Your task to perform on an android device: Go to Amazon Image 0: 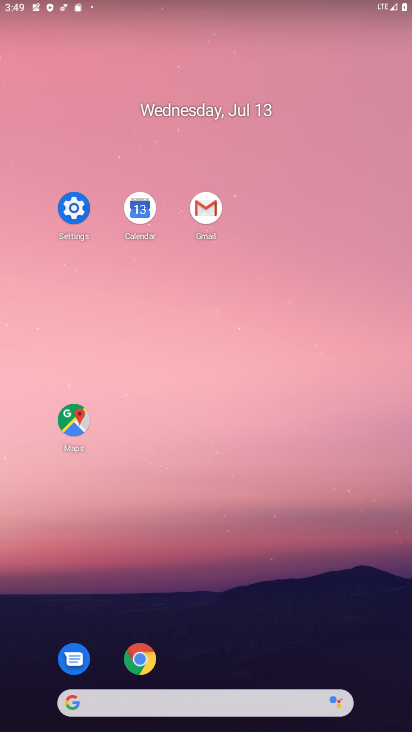
Step 0: click (146, 653)
Your task to perform on an android device: Go to Amazon Image 1: 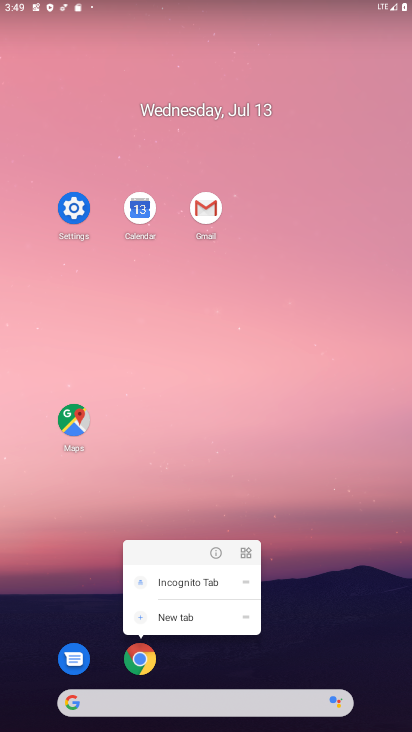
Step 1: click (149, 672)
Your task to perform on an android device: Go to Amazon Image 2: 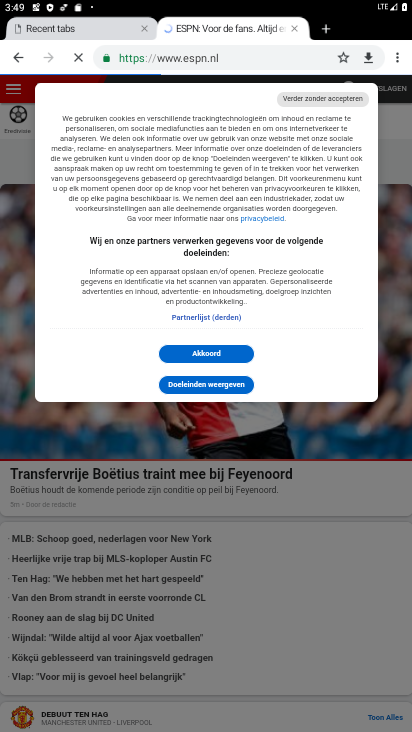
Step 2: click (324, 28)
Your task to perform on an android device: Go to Amazon Image 3: 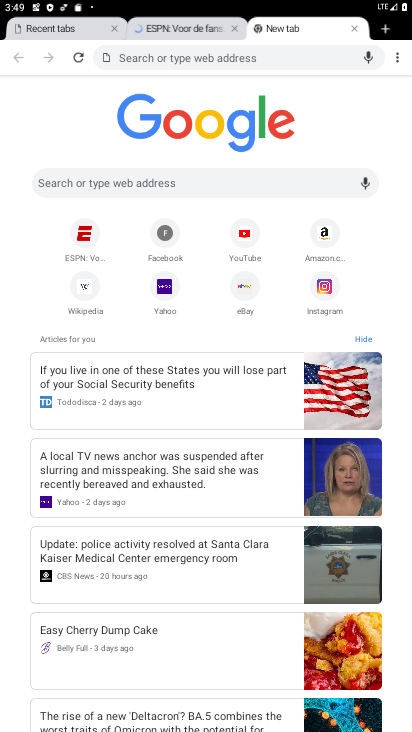
Step 3: click (318, 238)
Your task to perform on an android device: Go to Amazon Image 4: 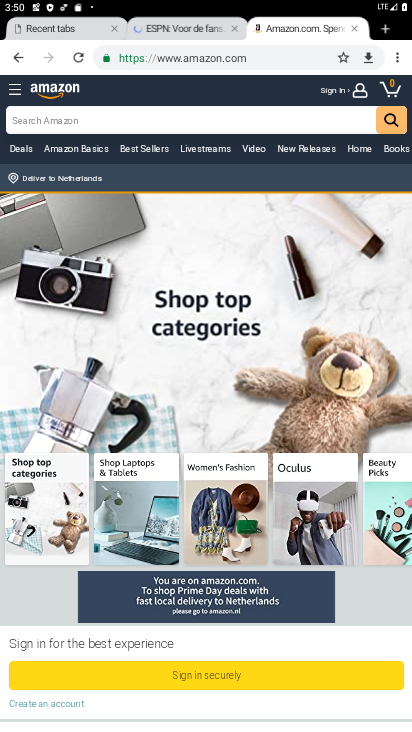
Step 4: task complete